Your task to perform on an android device: turn off improve location accuracy Image 0: 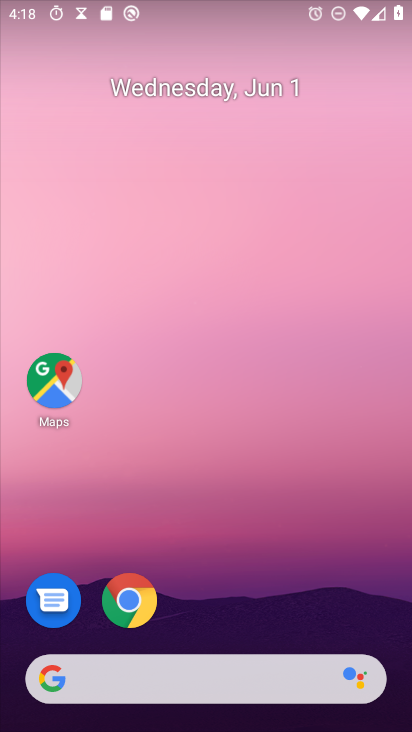
Step 0: drag from (228, 624) to (225, 258)
Your task to perform on an android device: turn off improve location accuracy Image 1: 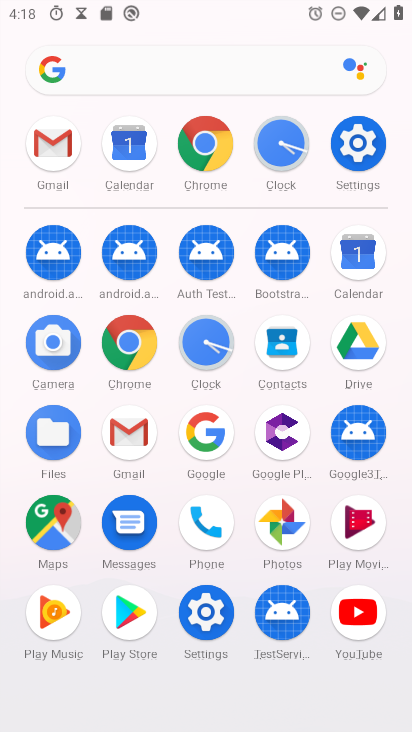
Step 1: click (358, 144)
Your task to perform on an android device: turn off improve location accuracy Image 2: 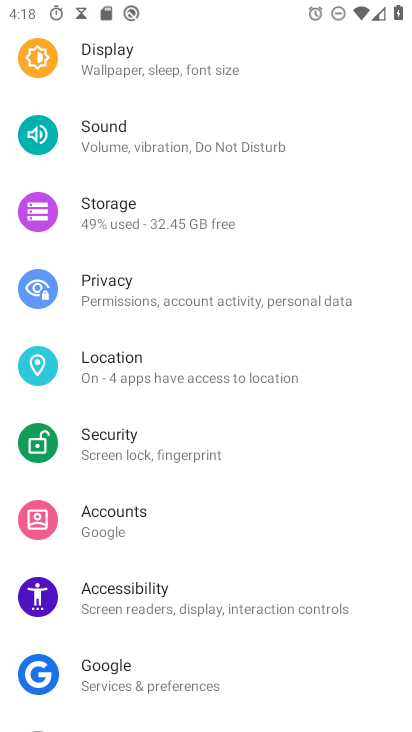
Step 2: drag from (153, 452) to (140, 231)
Your task to perform on an android device: turn off improve location accuracy Image 3: 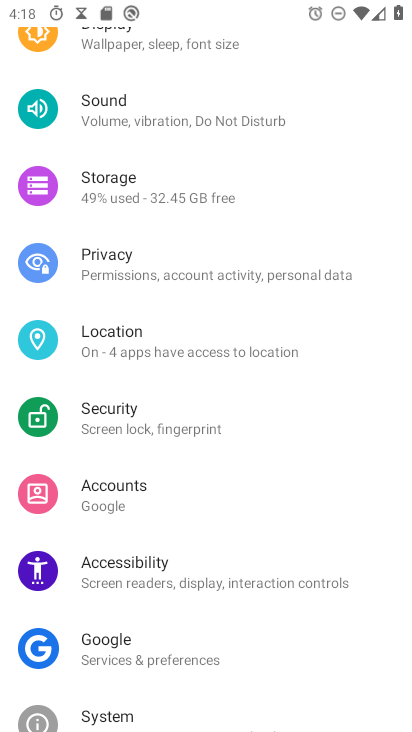
Step 3: drag from (187, 628) to (225, 347)
Your task to perform on an android device: turn off improve location accuracy Image 4: 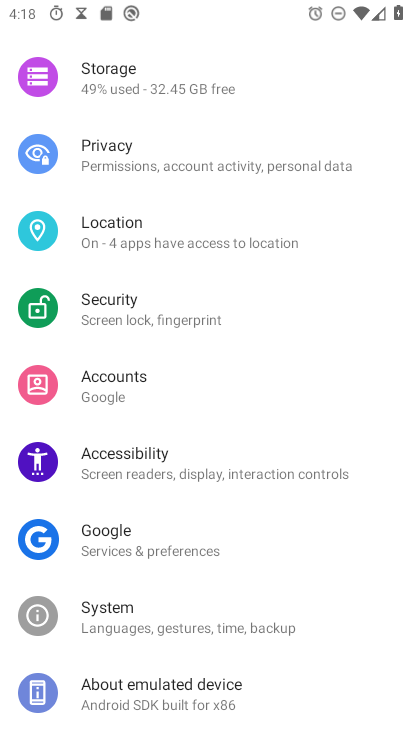
Step 4: click (129, 239)
Your task to perform on an android device: turn off improve location accuracy Image 5: 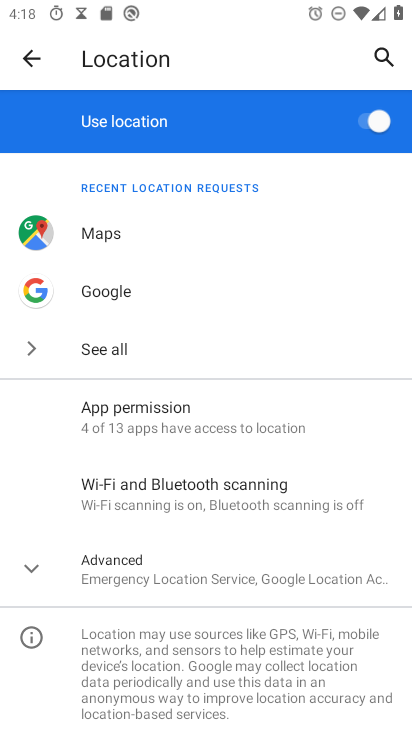
Step 5: drag from (146, 565) to (189, 477)
Your task to perform on an android device: turn off improve location accuracy Image 6: 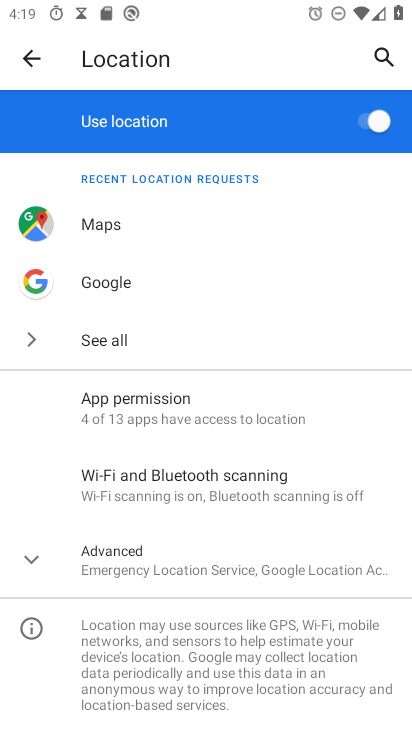
Step 6: click (105, 559)
Your task to perform on an android device: turn off improve location accuracy Image 7: 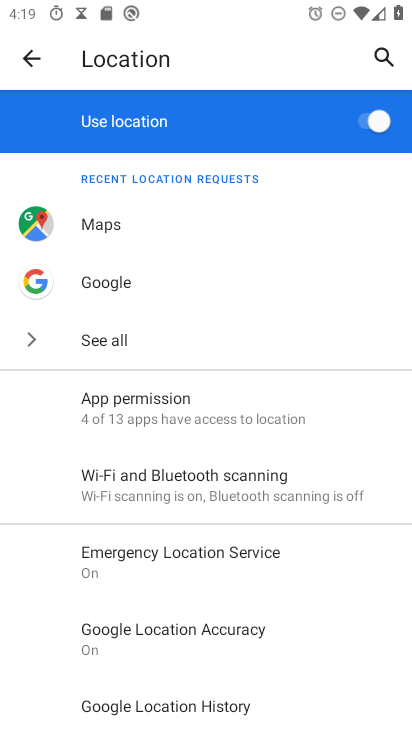
Step 7: click (170, 636)
Your task to perform on an android device: turn off improve location accuracy Image 8: 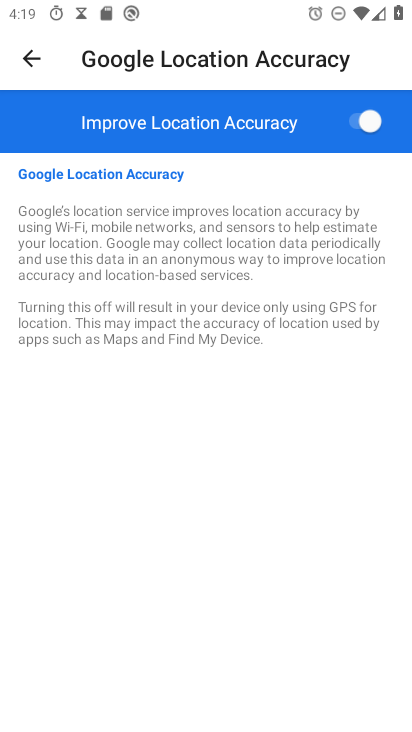
Step 8: click (346, 126)
Your task to perform on an android device: turn off improve location accuracy Image 9: 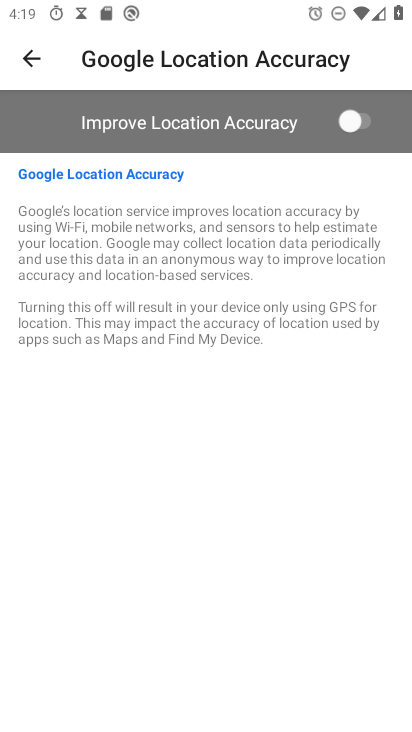
Step 9: task complete